Your task to perform on an android device: turn on javascript in the chrome app Image 0: 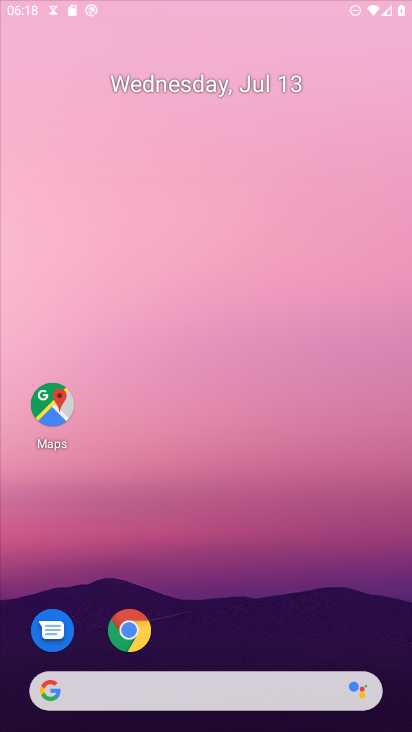
Step 0: drag from (292, 557) to (270, 118)
Your task to perform on an android device: turn on javascript in the chrome app Image 1: 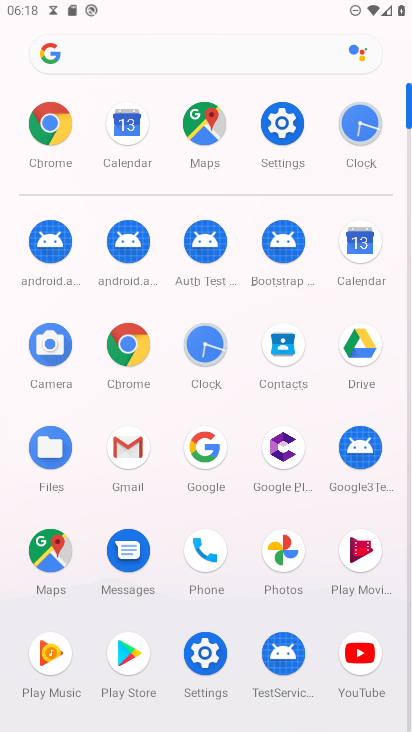
Step 1: click (123, 331)
Your task to perform on an android device: turn on javascript in the chrome app Image 2: 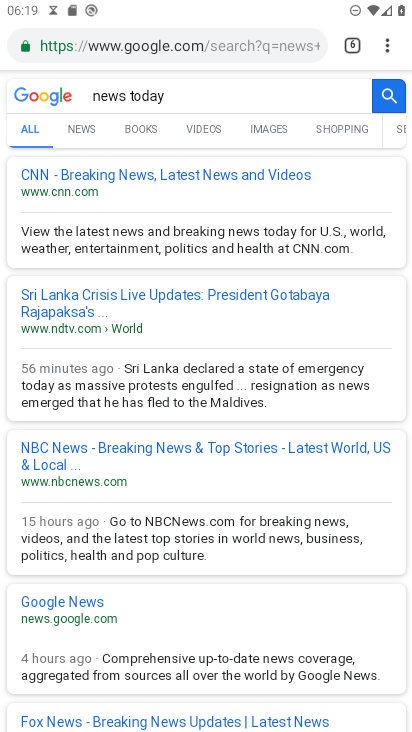
Step 2: drag from (376, 43) to (265, 507)
Your task to perform on an android device: turn on javascript in the chrome app Image 3: 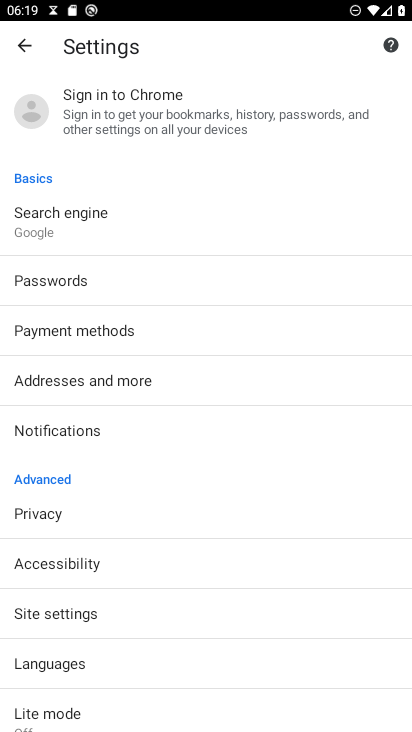
Step 3: click (92, 610)
Your task to perform on an android device: turn on javascript in the chrome app Image 4: 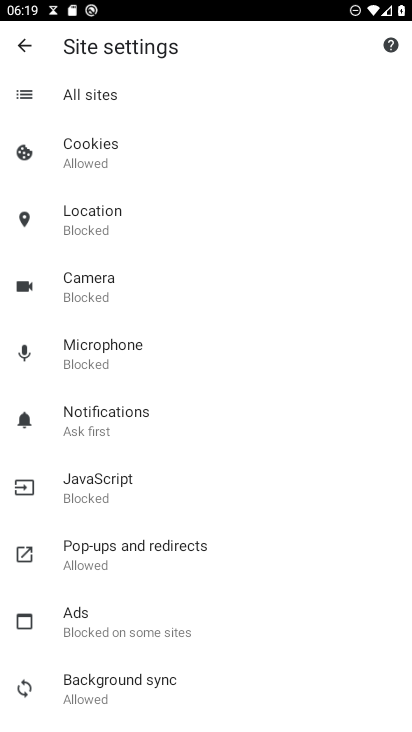
Step 4: click (99, 481)
Your task to perform on an android device: turn on javascript in the chrome app Image 5: 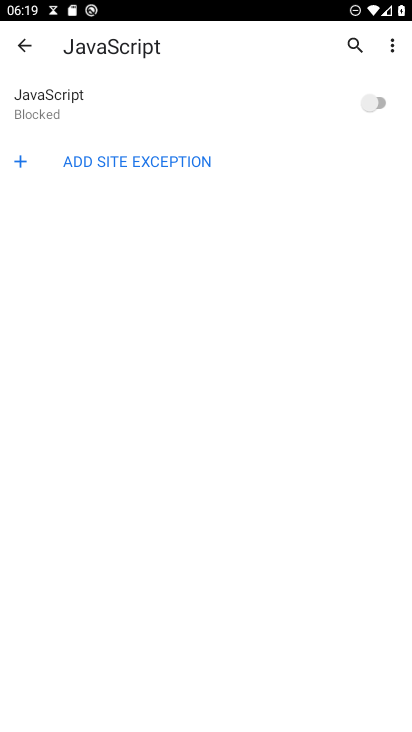
Step 5: click (373, 104)
Your task to perform on an android device: turn on javascript in the chrome app Image 6: 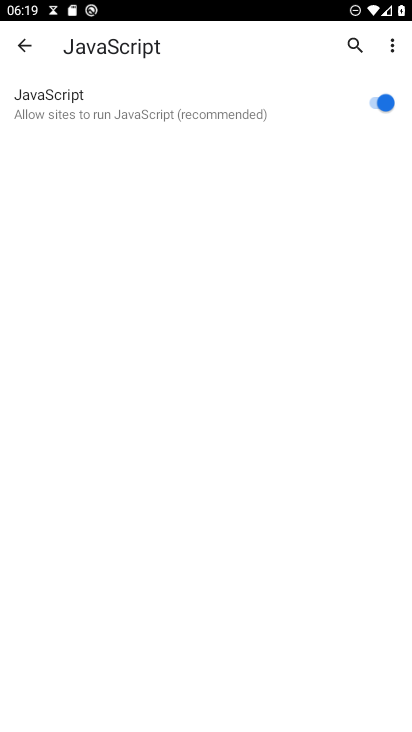
Step 6: task complete